Your task to perform on an android device: change the clock display to show seconds Image 0: 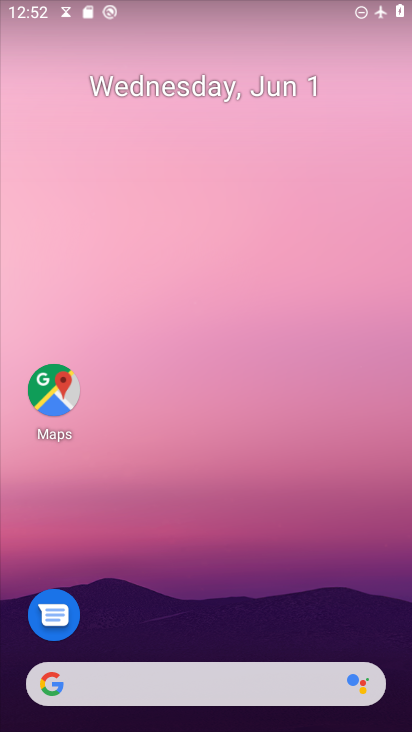
Step 0: drag from (199, 605) to (219, 428)
Your task to perform on an android device: change the clock display to show seconds Image 1: 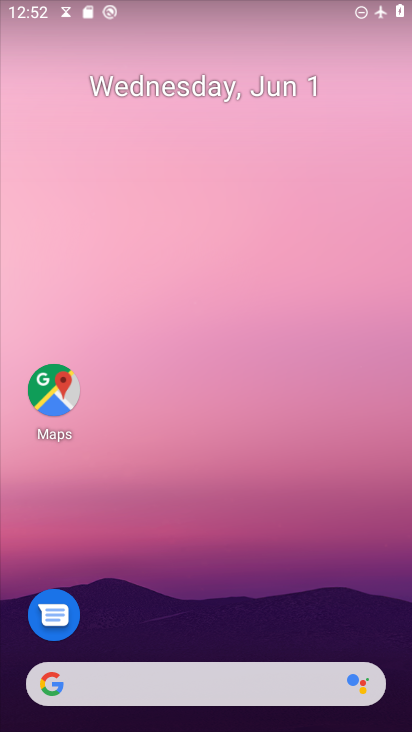
Step 1: drag from (198, 547) to (240, 98)
Your task to perform on an android device: change the clock display to show seconds Image 2: 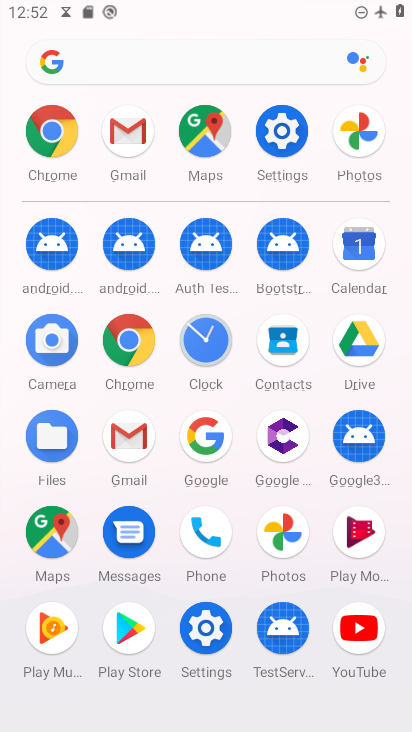
Step 2: click (207, 352)
Your task to perform on an android device: change the clock display to show seconds Image 3: 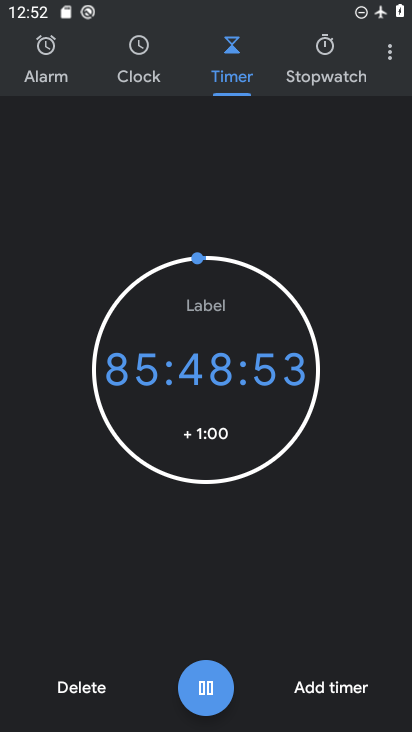
Step 3: click (152, 65)
Your task to perform on an android device: change the clock display to show seconds Image 4: 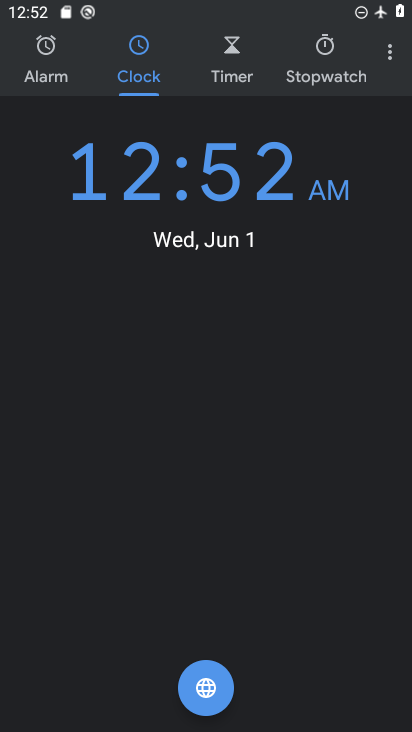
Step 4: click (211, 692)
Your task to perform on an android device: change the clock display to show seconds Image 5: 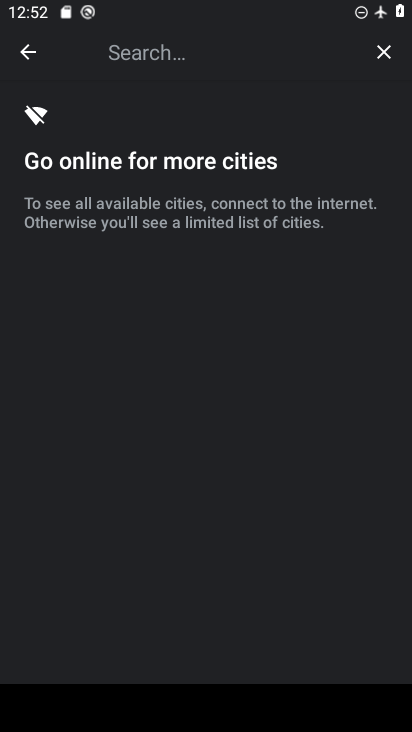
Step 5: click (387, 54)
Your task to perform on an android device: change the clock display to show seconds Image 6: 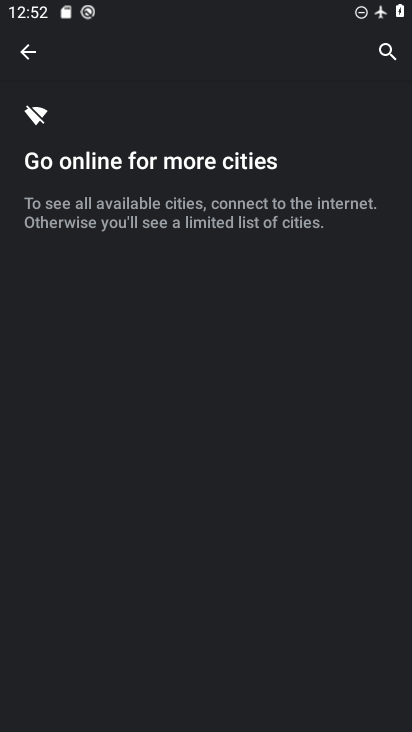
Step 6: click (33, 53)
Your task to perform on an android device: change the clock display to show seconds Image 7: 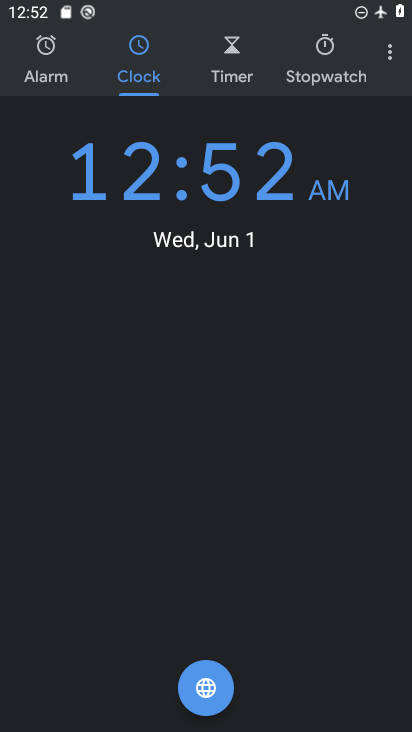
Step 7: click (390, 56)
Your task to perform on an android device: change the clock display to show seconds Image 8: 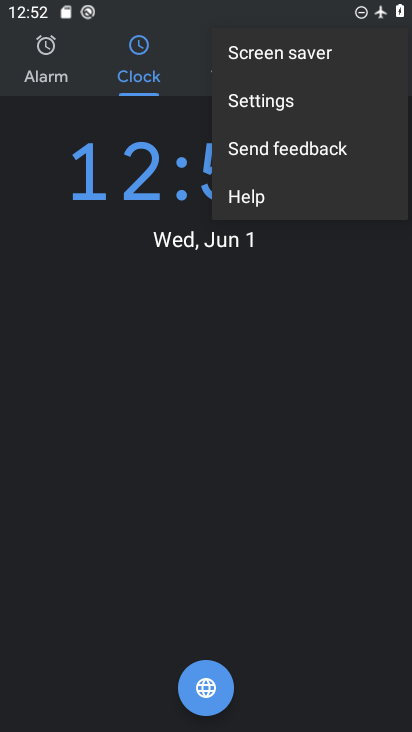
Step 8: click (259, 102)
Your task to perform on an android device: change the clock display to show seconds Image 9: 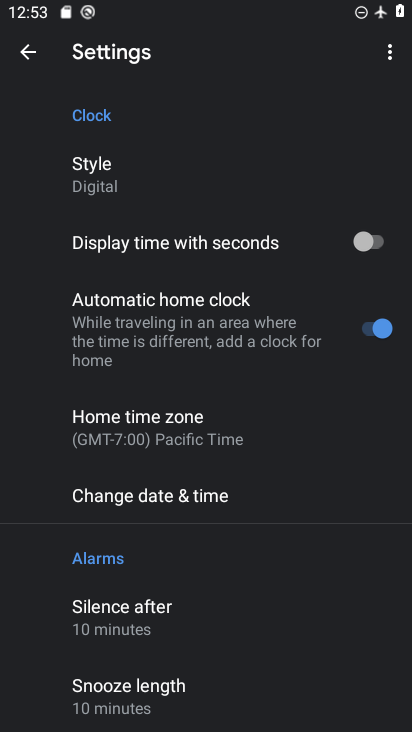
Step 9: click (129, 178)
Your task to perform on an android device: change the clock display to show seconds Image 10: 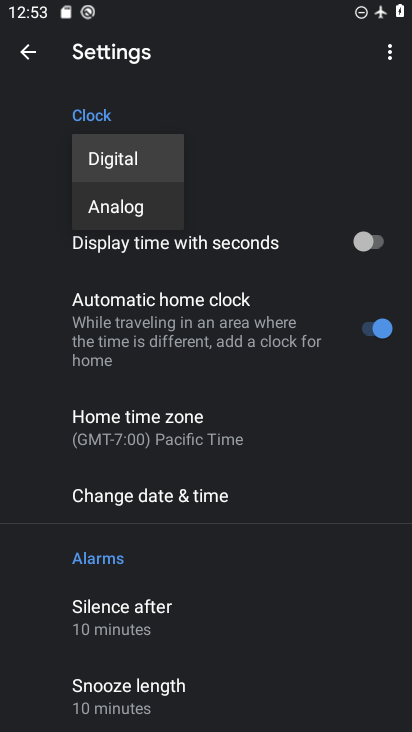
Step 10: click (126, 216)
Your task to perform on an android device: change the clock display to show seconds Image 11: 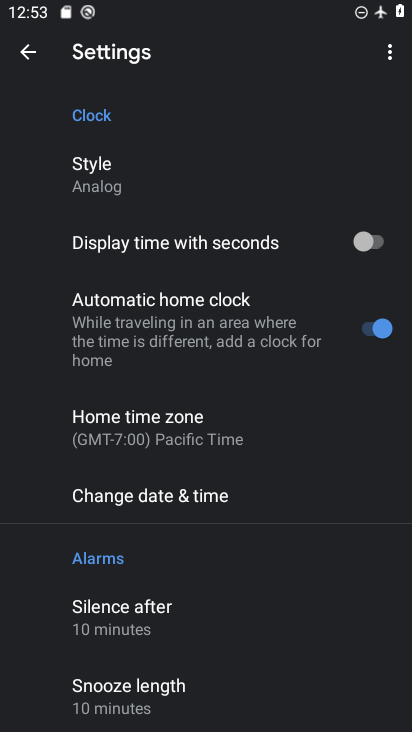
Step 11: click (361, 245)
Your task to perform on an android device: change the clock display to show seconds Image 12: 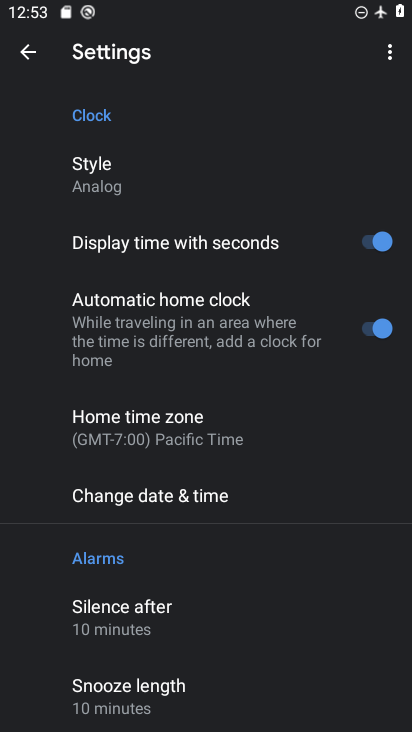
Step 12: task complete